Your task to perform on an android device: Search for energizer triple a on costco, select the first entry, and add it to the cart. Image 0: 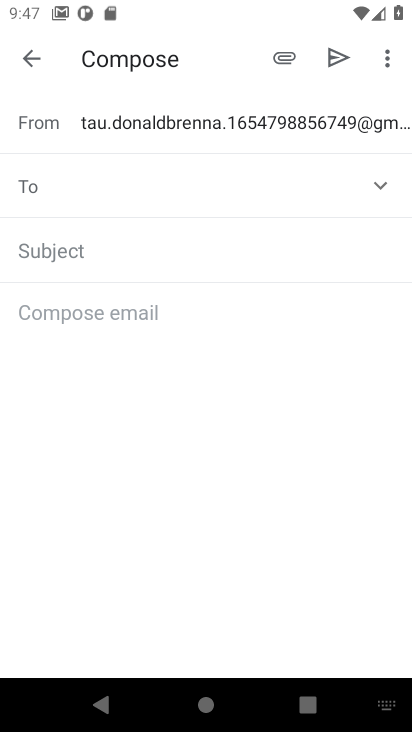
Step 0: press home button
Your task to perform on an android device: Search for energizer triple a on costco, select the first entry, and add it to the cart. Image 1: 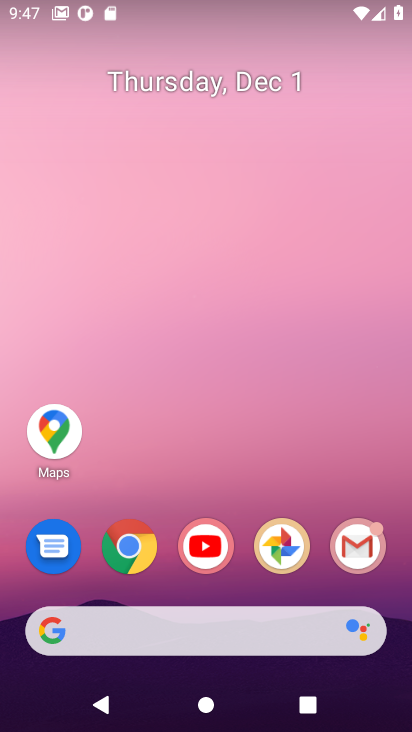
Step 1: click (131, 553)
Your task to perform on an android device: Search for energizer triple a on costco, select the first entry, and add it to the cart. Image 2: 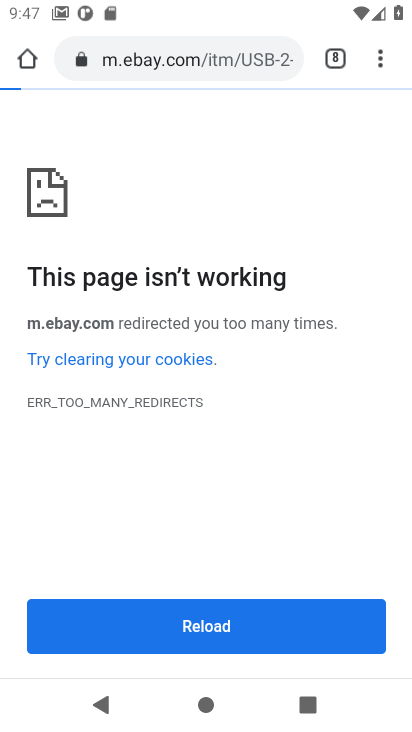
Step 2: click (151, 59)
Your task to perform on an android device: Search for energizer triple a on costco, select the first entry, and add it to the cart. Image 3: 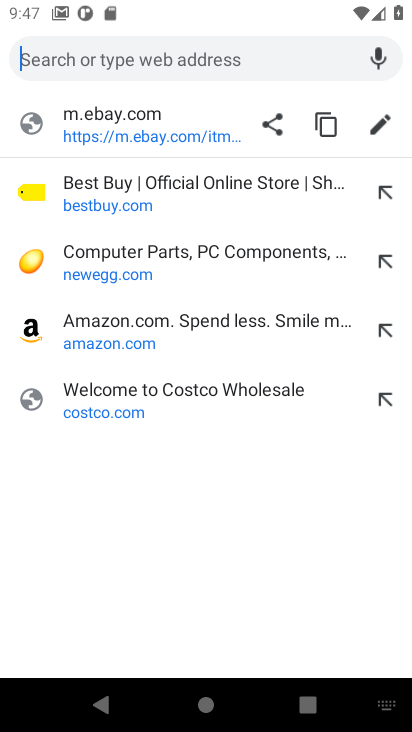
Step 3: click (94, 404)
Your task to perform on an android device: Search for energizer triple a on costco, select the first entry, and add it to the cart. Image 4: 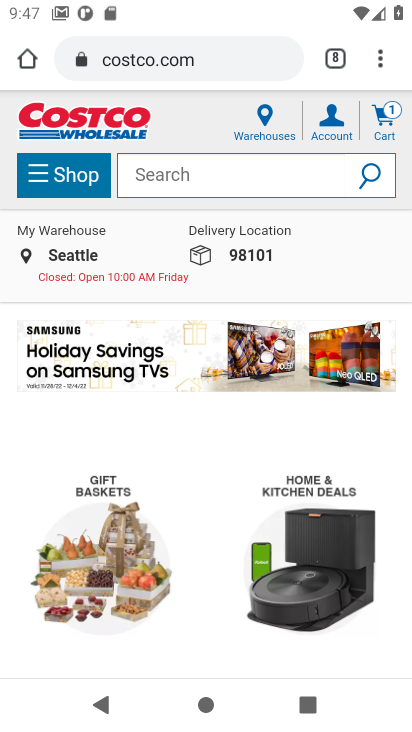
Step 4: click (210, 177)
Your task to perform on an android device: Search for energizer triple a on costco, select the first entry, and add it to the cart. Image 5: 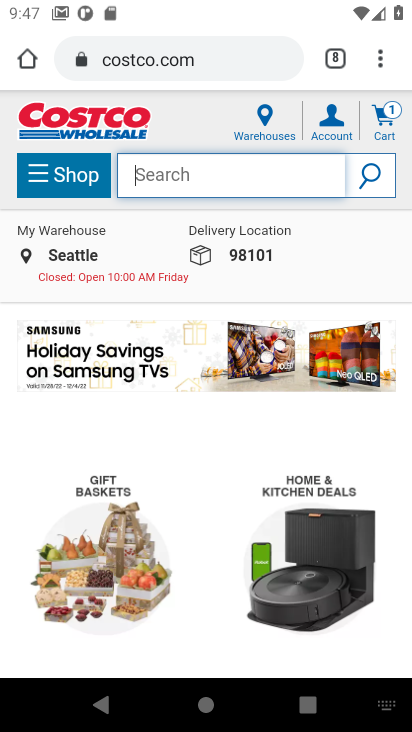
Step 5: type "energizer triple a"
Your task to perform on an android device: Search for energizer triple a on costco, select the first entry, and add it to the cart. Image 6: 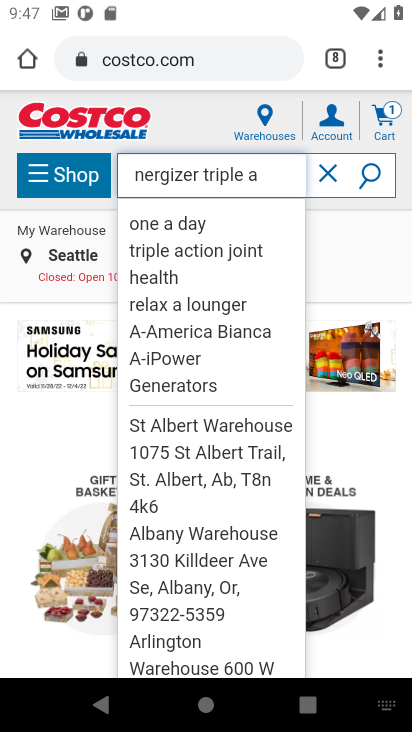
Step 6: click (362, 176)
Your task to perform on an android device: Search for energizer triple a on costco, select the first entry, and add it to the cart. Image 7: 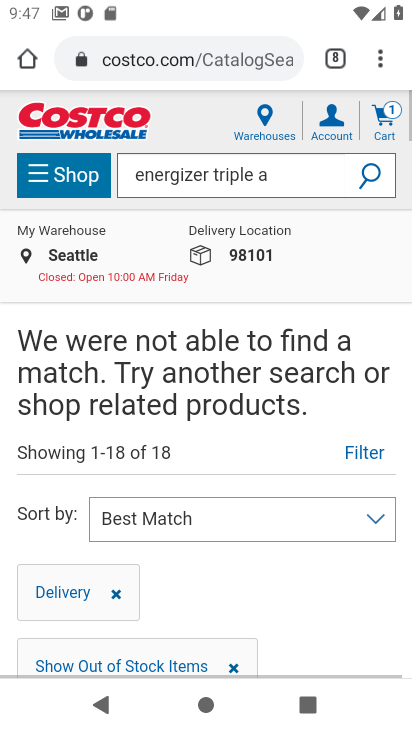
Step 7: task complete